Your task to perform on an android device: read, delete, or share a saved page in the chrome app Image 0: 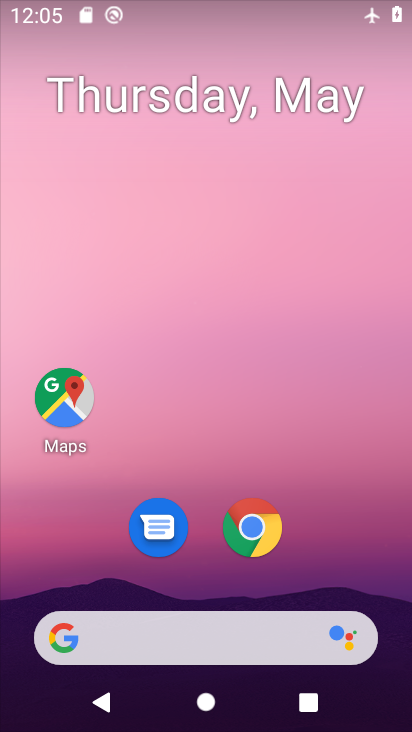
Step 0: click (253, 512)
Your task to perform on an android device: read, delete, or share a saved page in the chrome app Image 1: 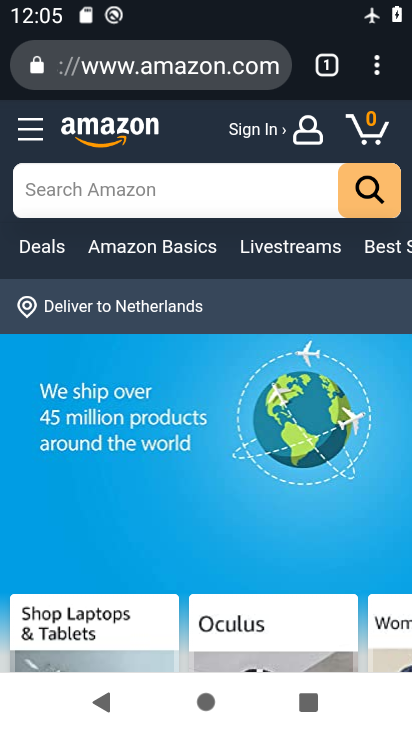
Step 1: drag from (373, 51) to (193, 419)
Your task to perform on an android device: read, delete, or share a saved page in the chrome app Image 2: 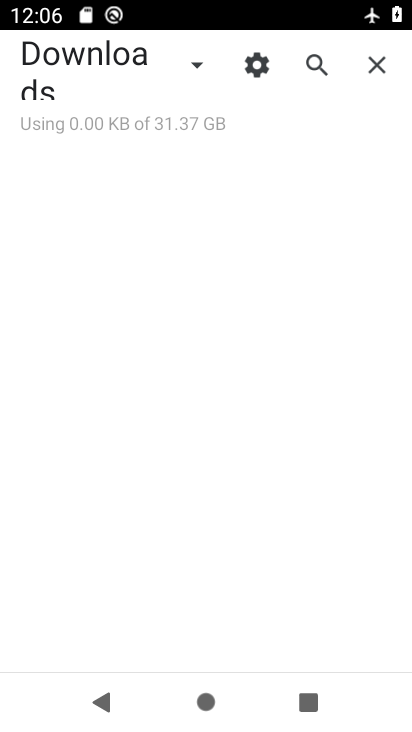
Step 2: click (175, 58)
Your task to perform on an android device: read, delete, or share a saved page in the chrome app Image 3: 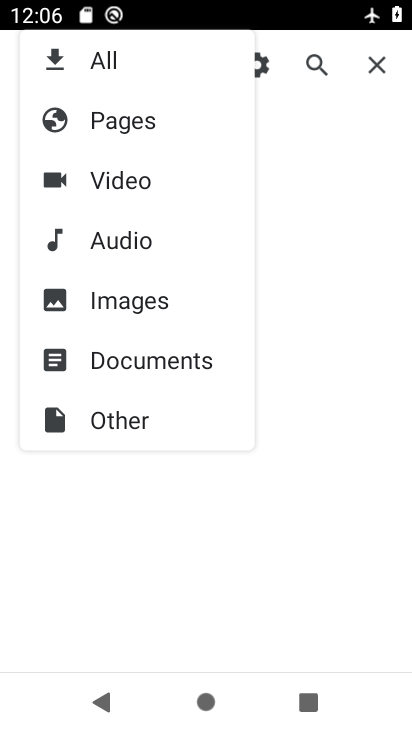
Step 3: click (114, 115)
Your task to perform on an android device: read, delete, or share a saved page in the chrome app Image 4: 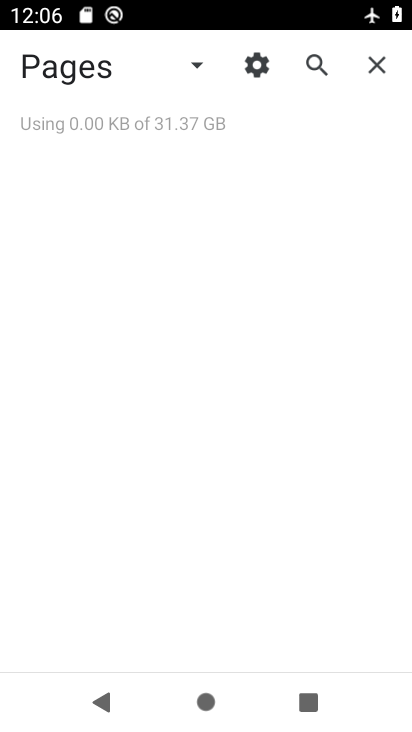
Step 4: task complete